Your task to perform on an android device: change the upload size in google photos Image 0: 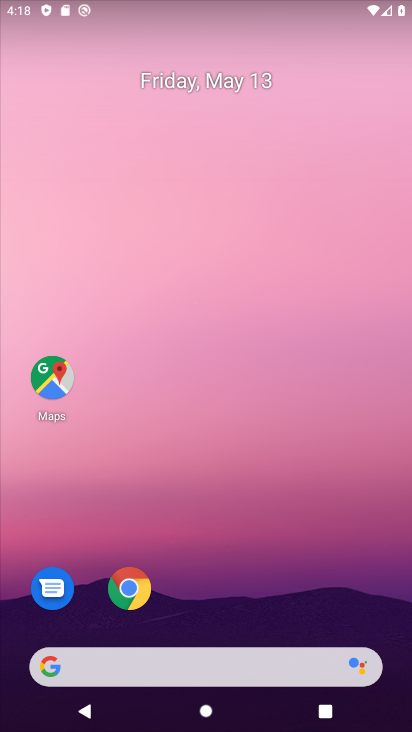
Step 0: drag from (201, 604) to (234, 78)
Your task to perform on an android device: change the upload size in google photos Image 1: 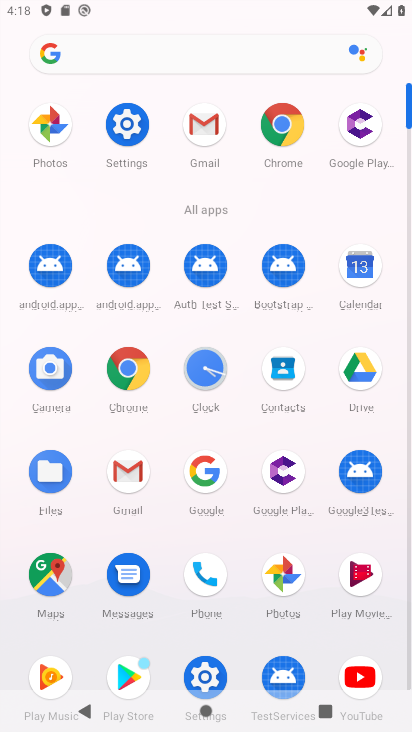
Step 1: click (68, 129)
Your task to perform on an android device: change the upload size in google photos Image 2: 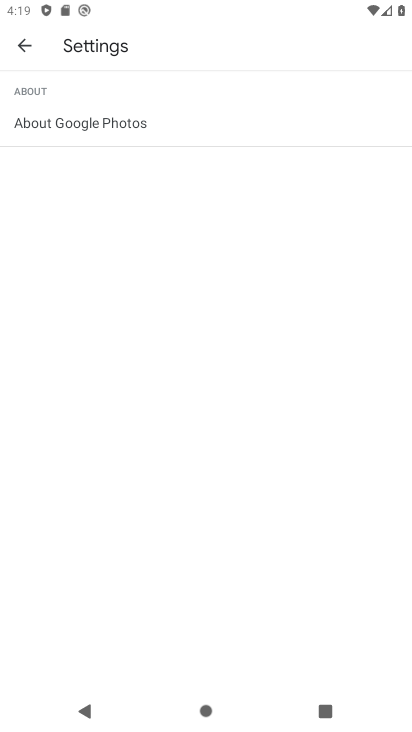
Step 2: task complete